Your task to perform on an android device: check google app version Image 0: 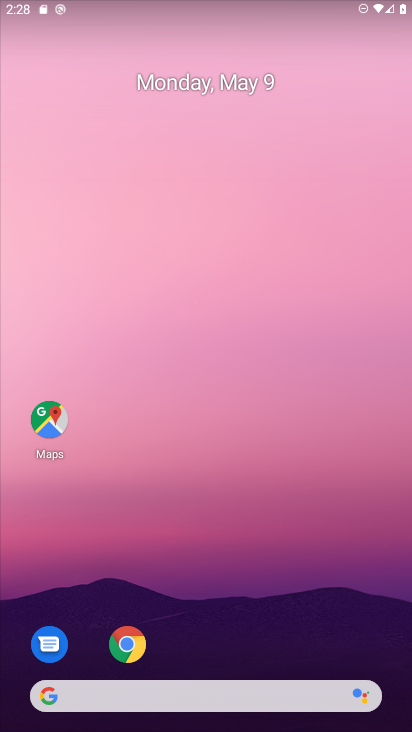
Step 0: drag from (206, 642) to (246, 162)
Your task to perform on an android device: check google app version Image 1: 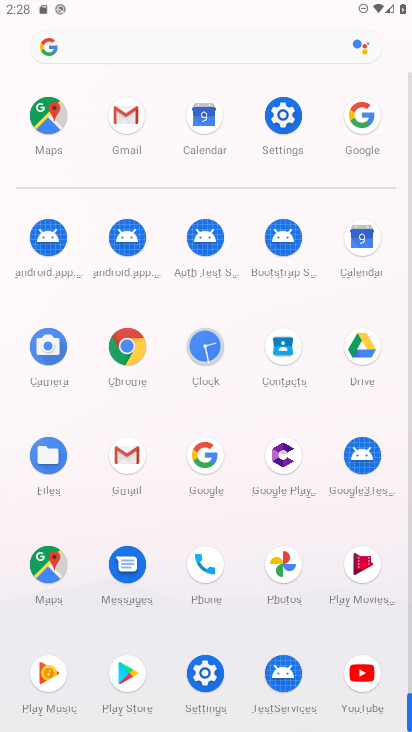
Step 1: click (213, 492)
Your task to perform on an android device: check google app version Image 2: 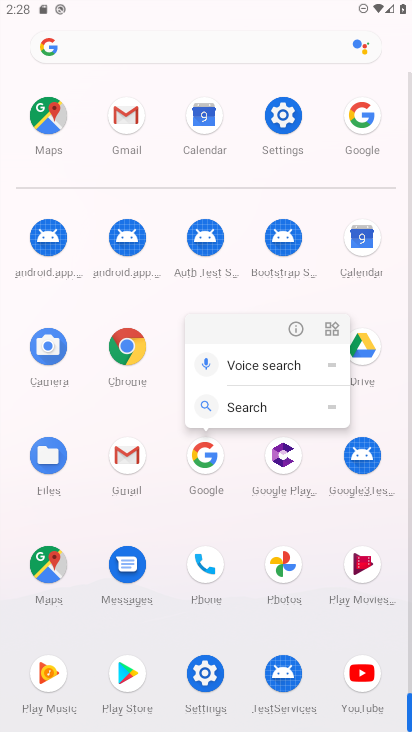
Step 2: click (171, 468)
Your task to perform on an android device: check google app version Image 3: 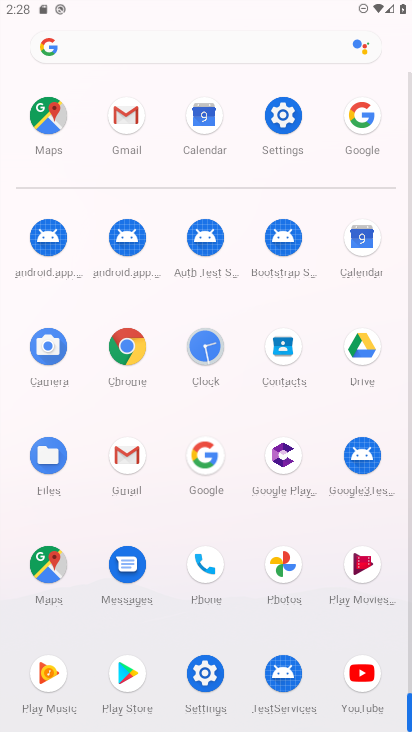
Step 3: click (202, 469)
Your task to perform on an android device: check google app version Image 4: 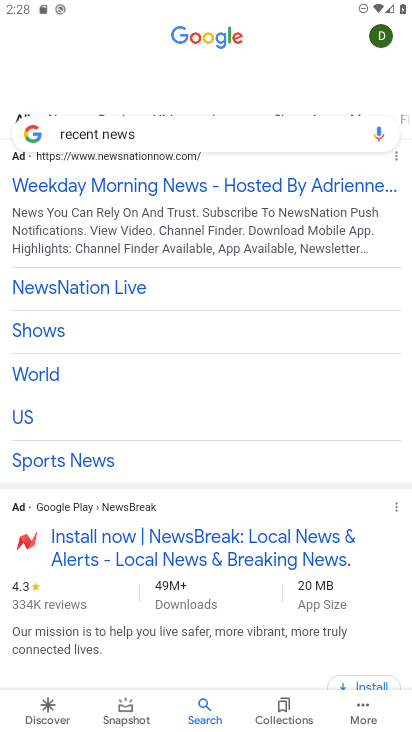
Step 4: click (359, 724)
Your task to perform on an android device: check google app version Image 5: 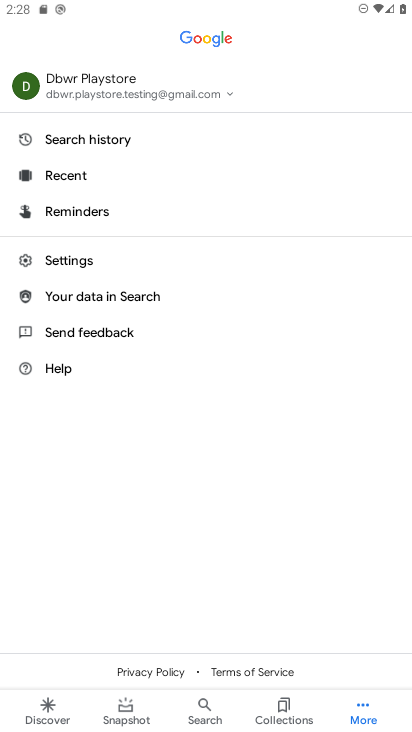
Step 5: click (361, 717)
Your task to perform on an android device: check google app version Image 6: 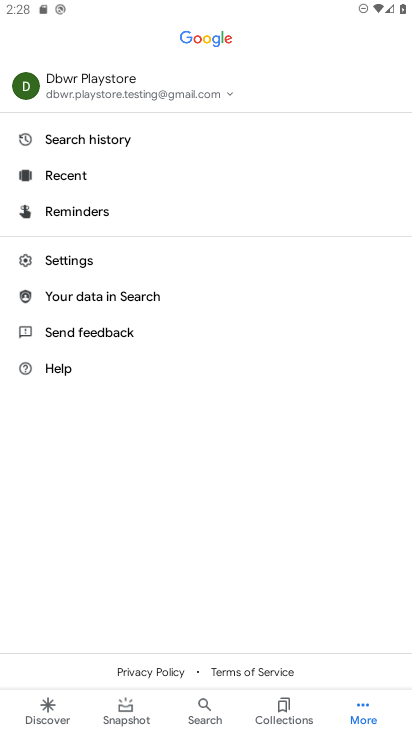
Step 6: click (91, 271)
Your task to perform on an android device: check google app version Image 7: 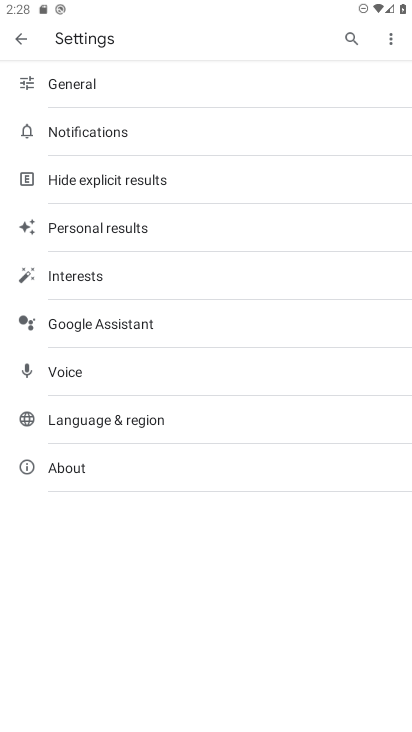
Step 7: click (155, 456)
Your task to perform on an android device: check google app version Image 8: 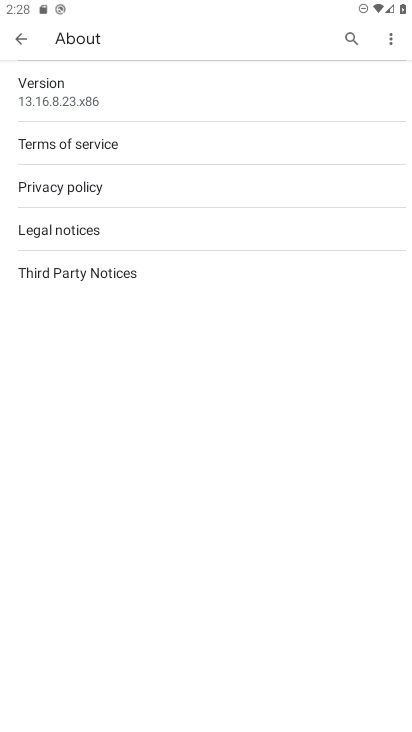
Step 8: task complete